Your task to perform on an android device: Show me recent news Image 0: 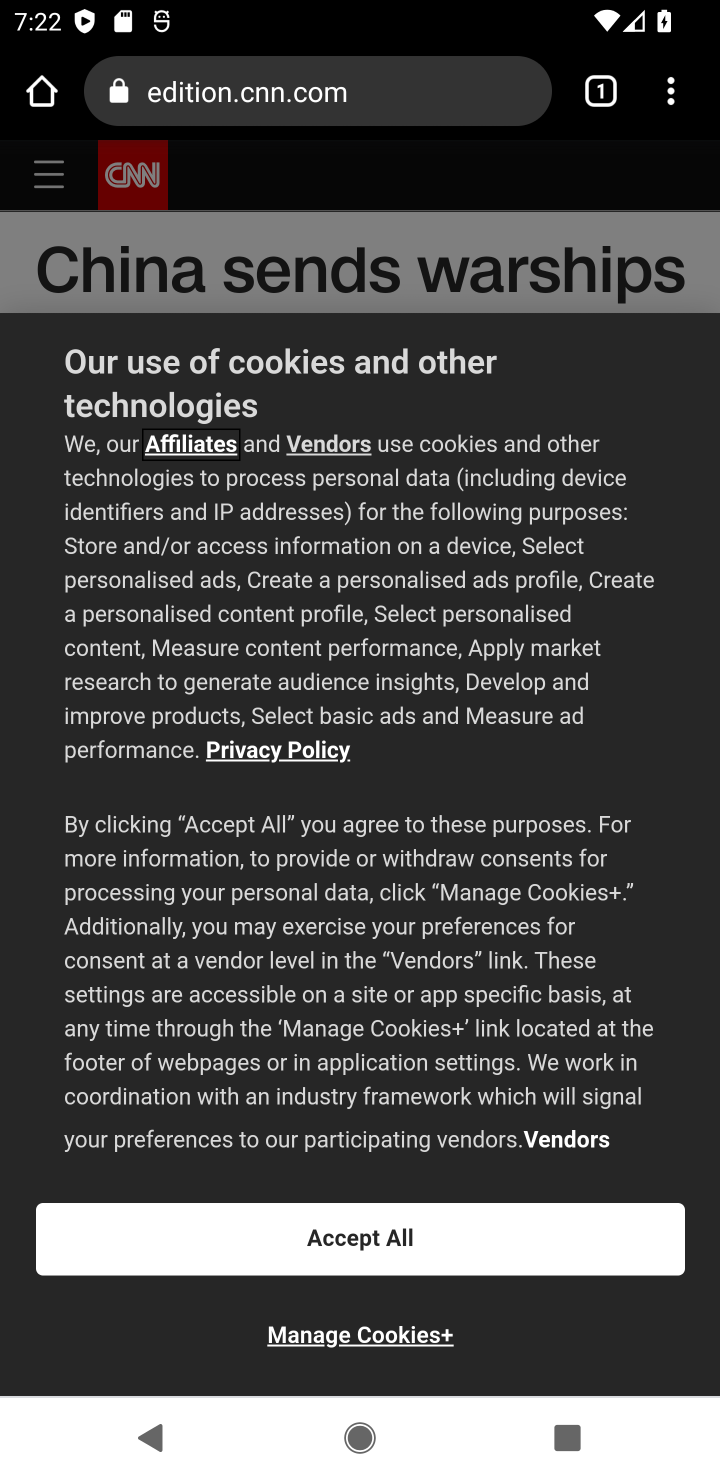
Step 0: press home button
Your task to perform on an android device: Show me recent news Image 1: 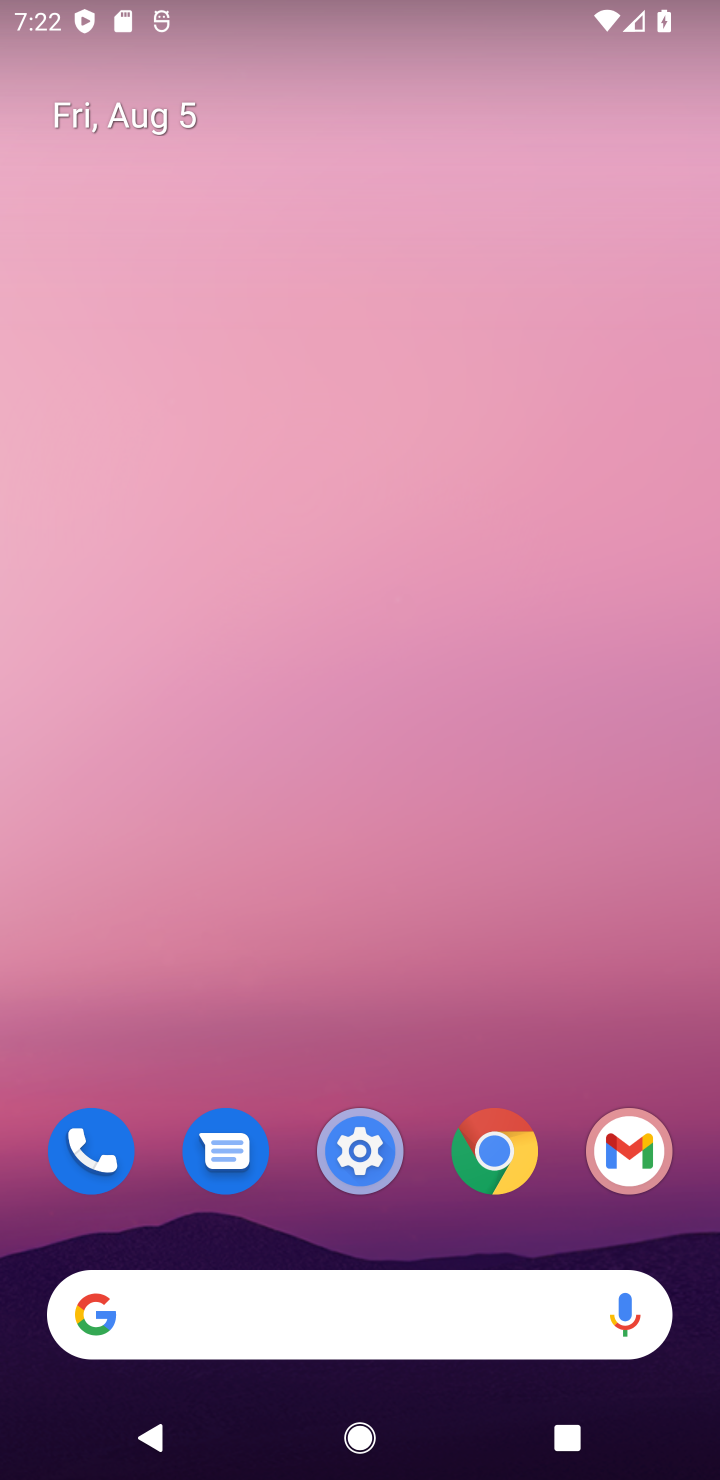
Step 1: click (373, 1319)
Your task to perform on an android device: Show me recent news Image 2: 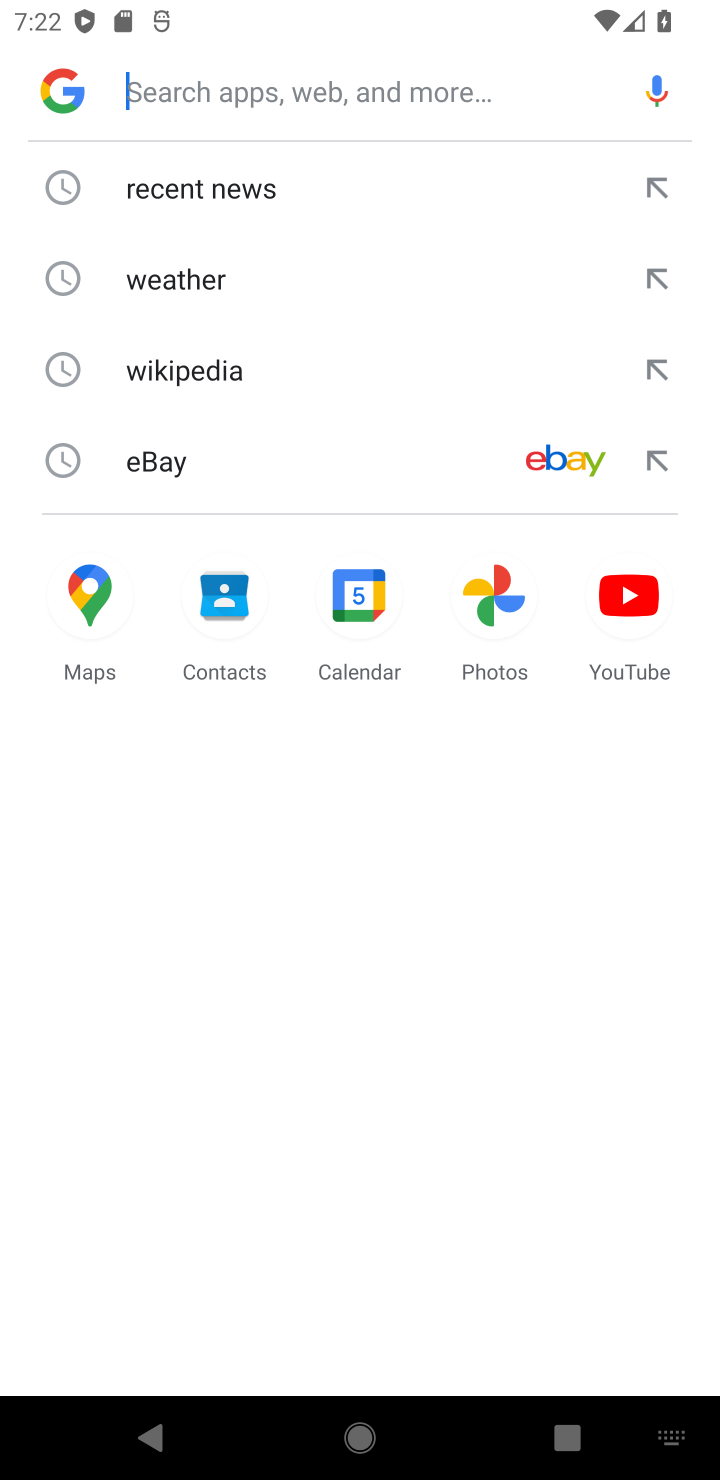
Step 2: task complete